Your task to perform on an android device: Search for "razer blade" on target, select the first entry, add it to the cart, then select checkout. Image 0: 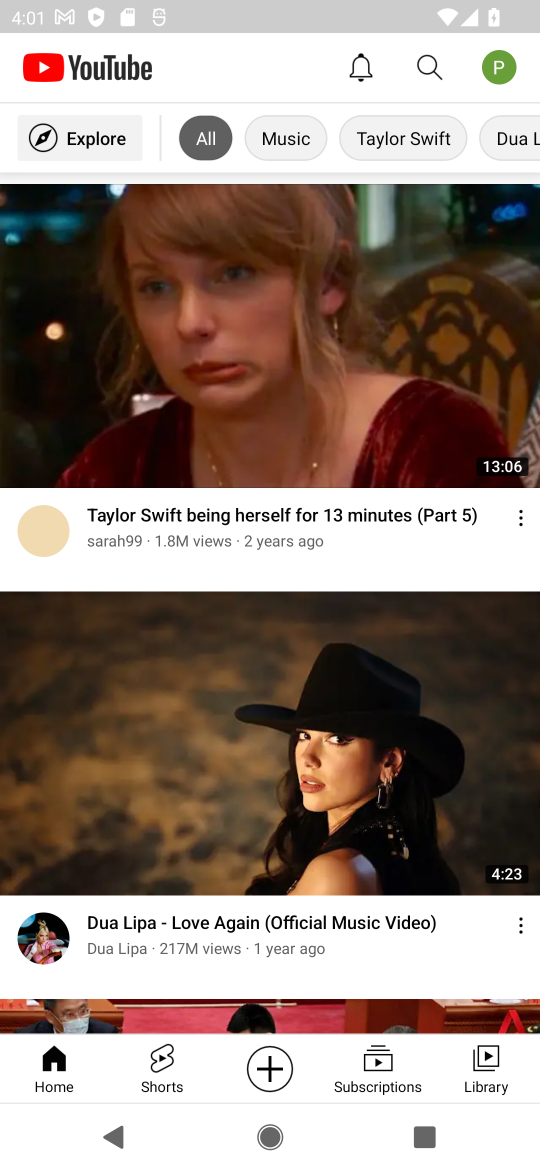
Step 0: press home button
Your task to perform on an android device: Search for "razer blade" on target, select the first entry, add it to the cart, then select checkout. Image 1: 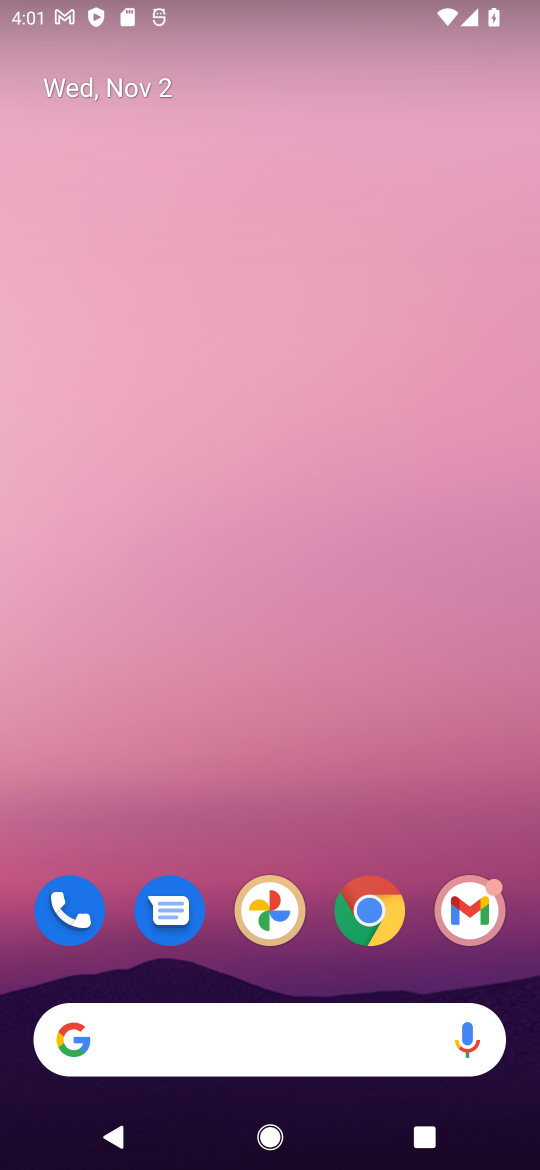
Step 1: click (389, 906)
Your task to perform on an android device: Search for "razer blade" on target, select the first entry, add it to the cart, then select checkout. Image 2: 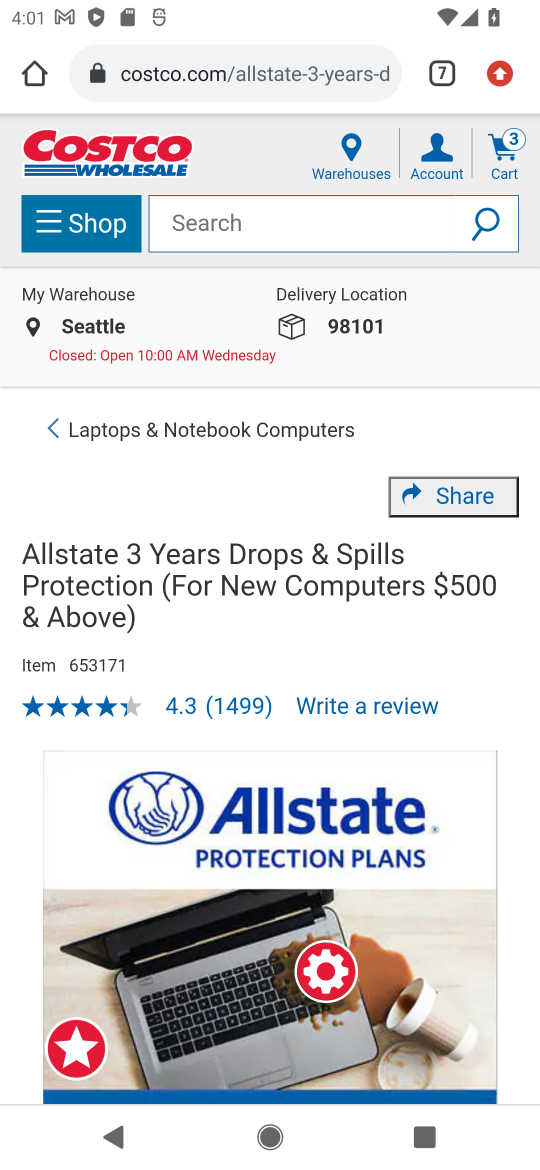
Step 2: click (444, 65)
Your task to perform on an android device: Search for "razer blade" on target, select the first entry, add it to the cart, then select checkout. Image 3: 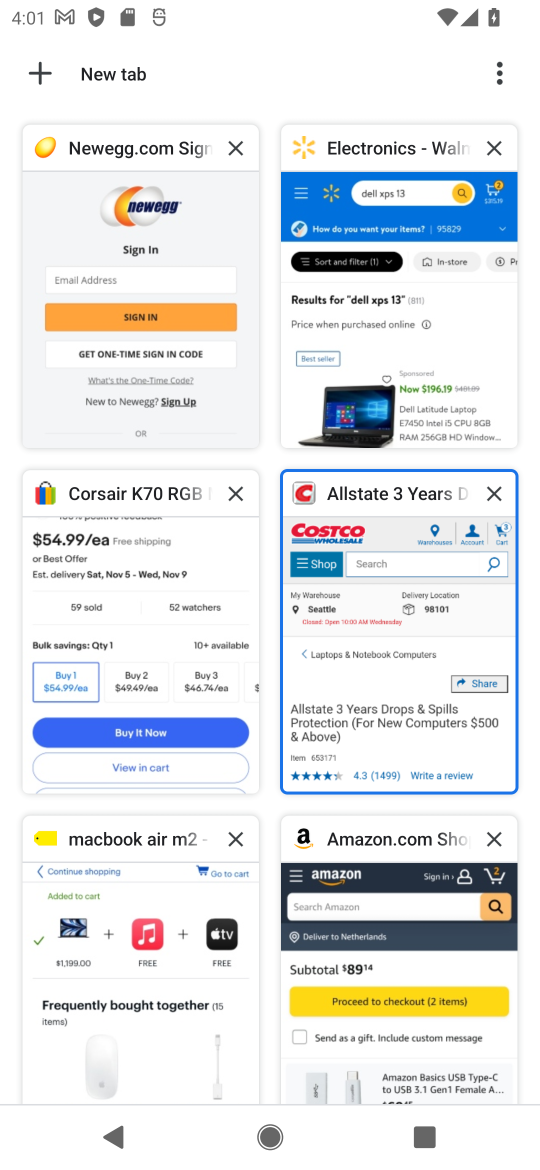
Step 3: drag from (343, 916) to (306, 181)
Your task to perform on an android device: Search for "razer blade" on target, select the first entry, add it to the cart, then select checkout. Image 4: 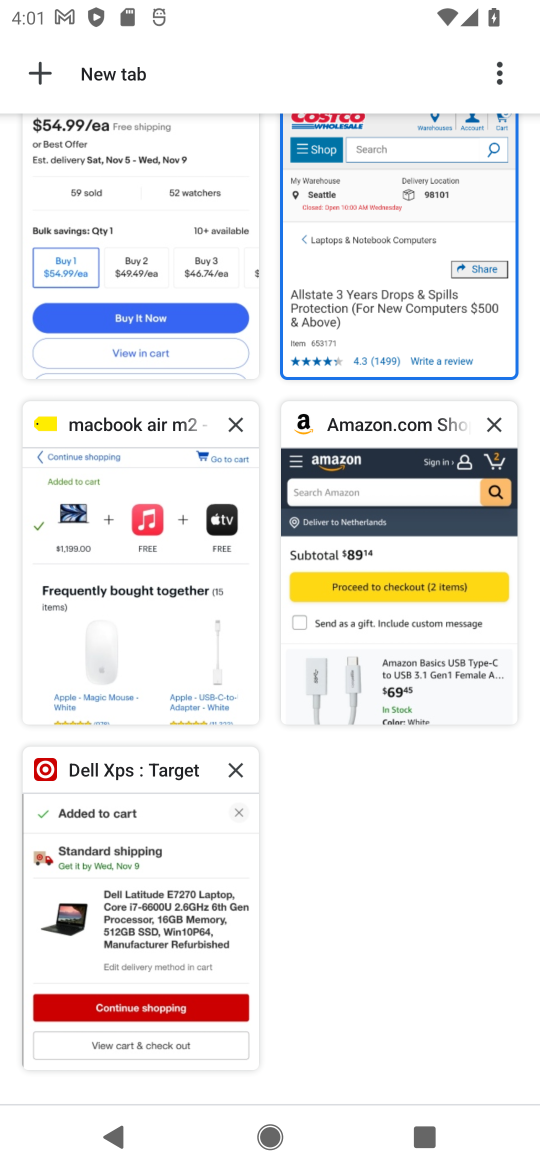
Step 4: click (99, 838)
Your task to perform on an android device: Search for "razer blade" on target, select the first entry, add it to the cart, then select checkout. Image 5: 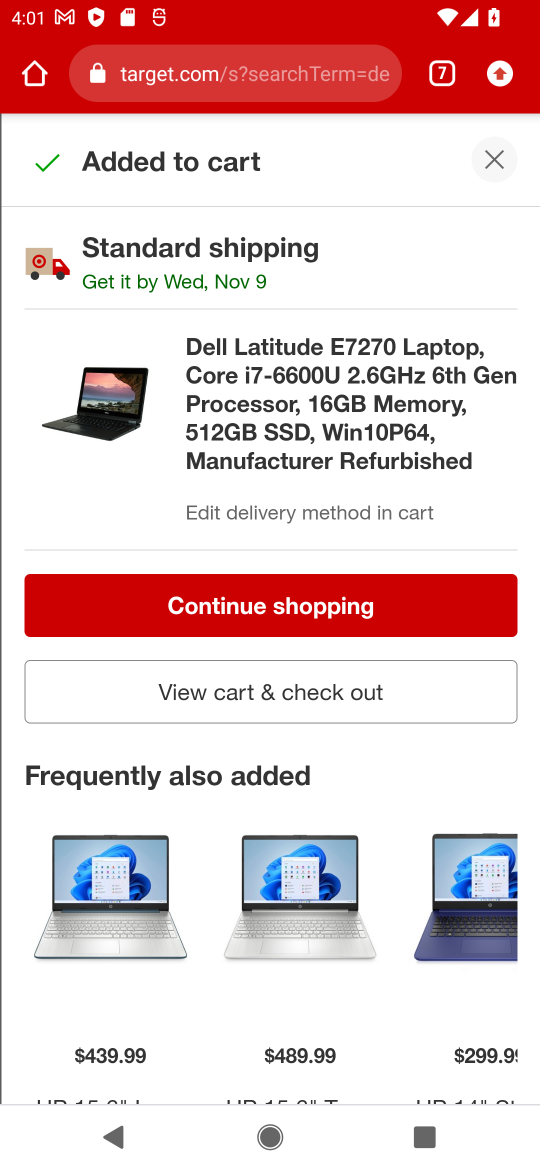
Step 5: click (493, 160)
Your task to perform on an android device: Search for "razer blade" on target, select the first entry, add it to the cart, then select checkout. Image 6: 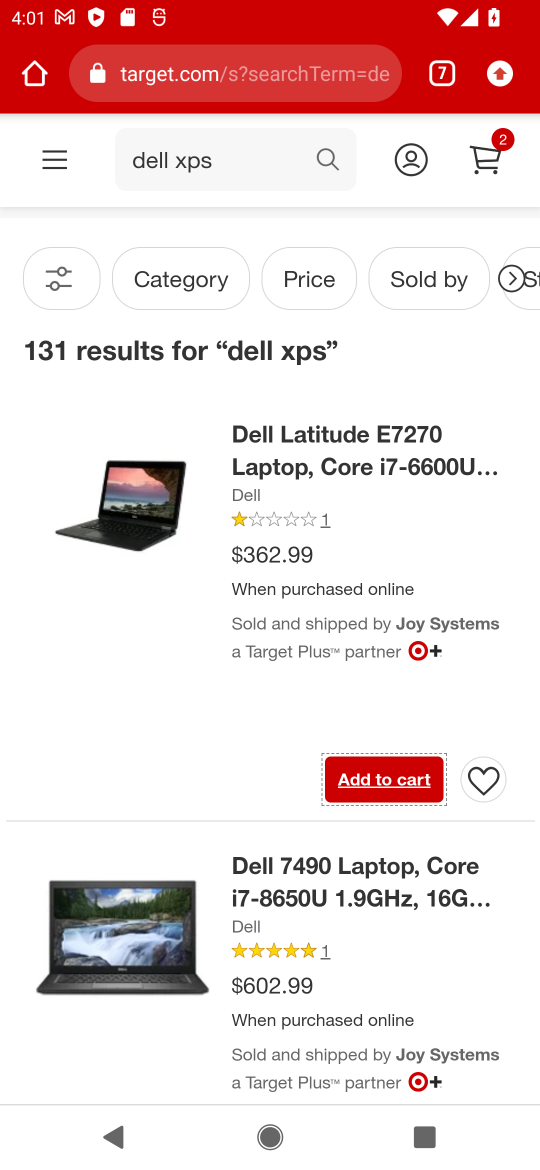
Step 6: click (225, 166)
Your task to perform on an android device: Search for "razer blade" on target, select the first entry, add it to the cart, then select checkout. Image 7: 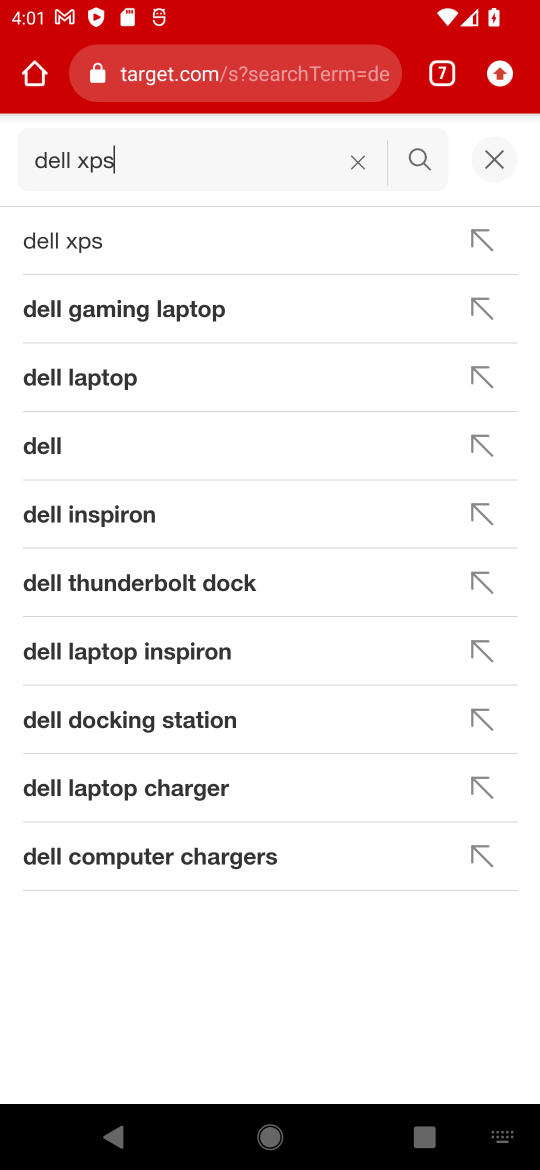
Step 7: click (361, 165)
Your task to perform on an android device: Search for "razer blade" on target, select the first entry, add it to the cart, then select checkout. Image 8: 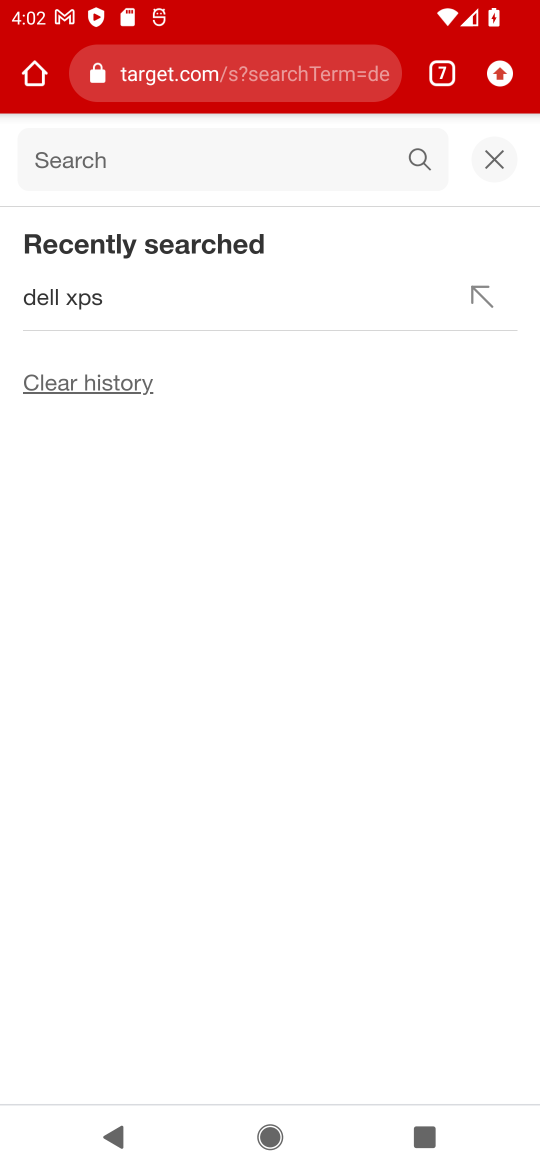
Step 8: click (338, 169)
Your task to perform on an android device: Search for "razer blade" on target, select the first entry, add it to the cart, then select checkout. Image 9: 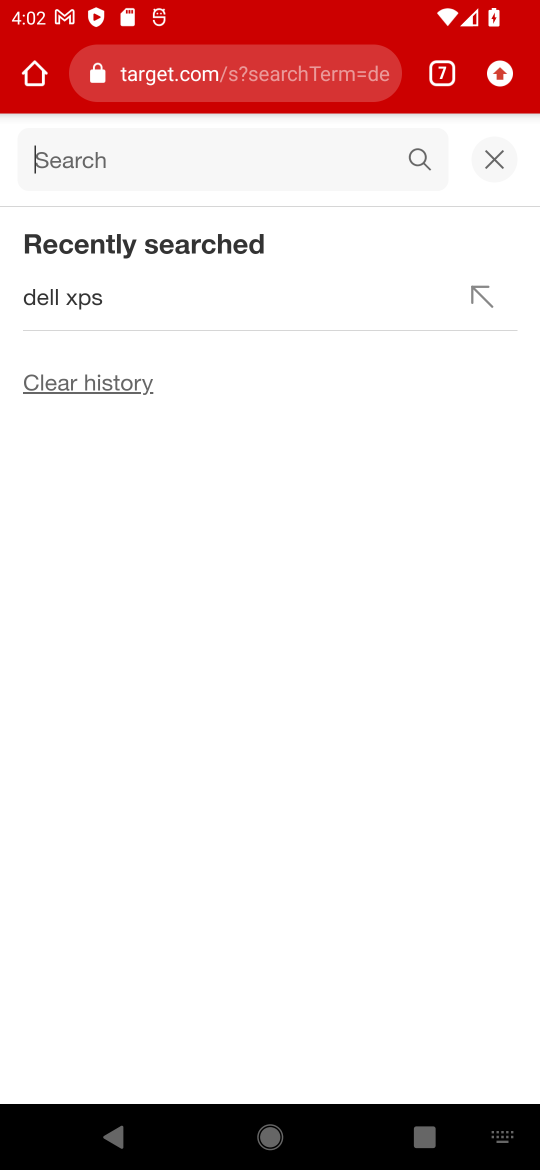
Step 9: type "razer blade"
Your task to perform on an android device: Search for "razer blade" on target, select the first entry, add it to the cart, then select checkout. Image 10: 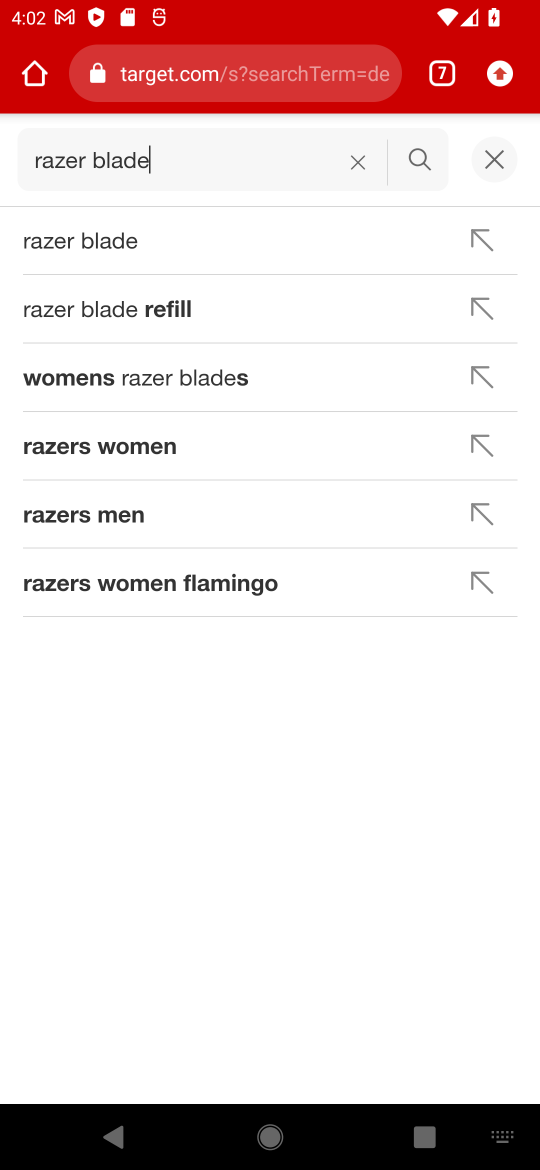
Step 10: click (108, 243)
Your task to perform on an android device: Search for "razer blade" on target, select the first entry, add it to the cart, then select checkout. Image 11: 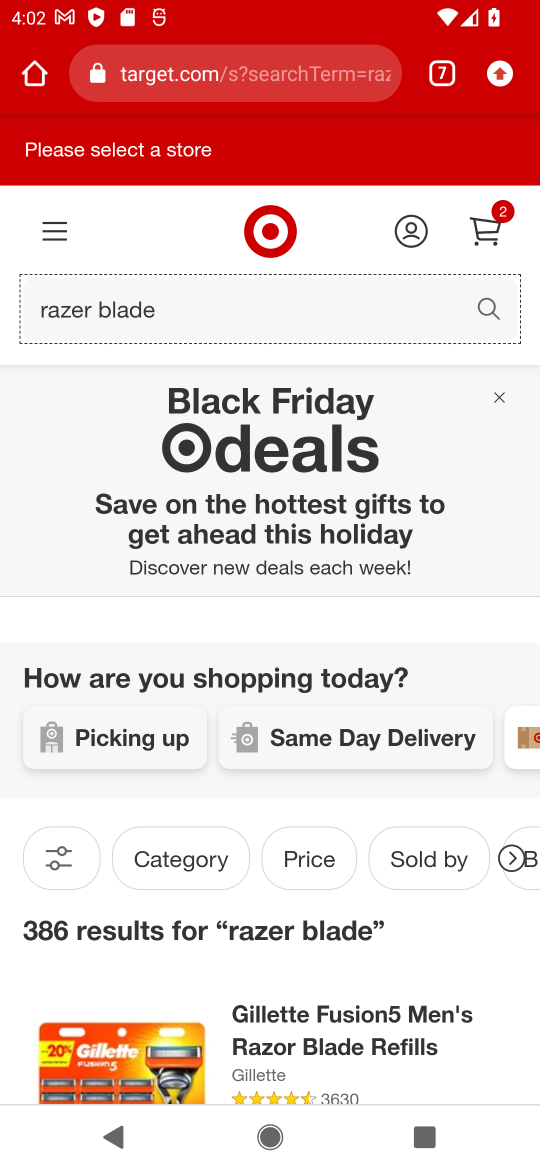
Step 11: drag from (329, 960) to (446, 382)
Your task to perform on an android device: Search for "razer blade" on target, select the first entry, add it to the cart, then select checkout. Image 12: 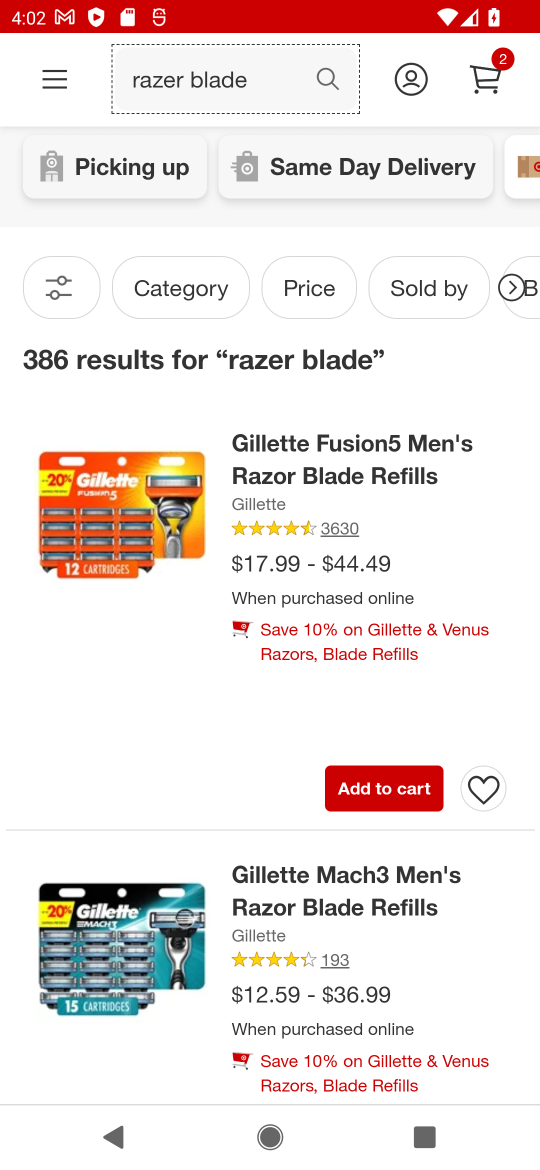
Step 12: click (388, 785)
Your task to perform on an android device: Search for "razer blade" on target, select the first entry, add it to the cart, then select checkout. Image 13: 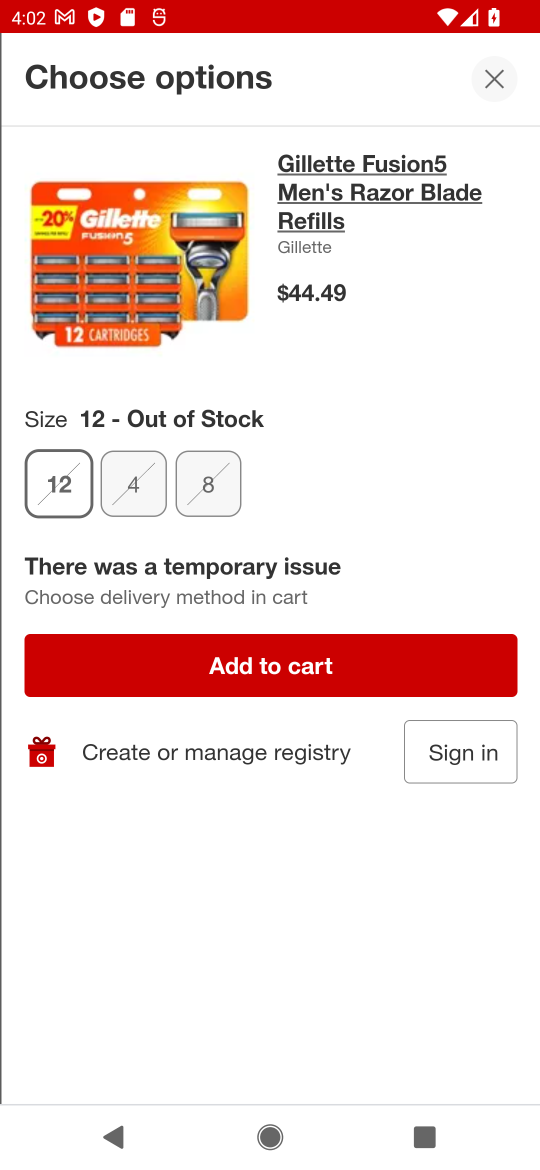
Step 13: click (336, 674)
Your task to perform on an android device: Search for "razer blade" on target, select the first entry, add it to the cart, then select checkout. Image 14: 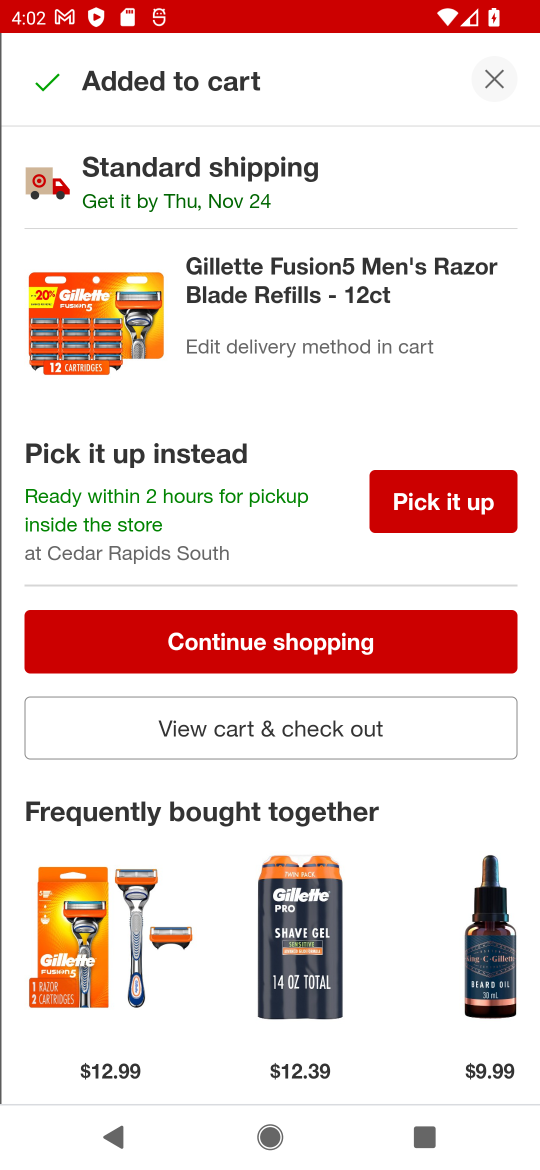
Step 14: click (319, 727)
Your task to perform on an android device: Search for "razer blade" on target, select the first entry, add it to the cart, then select checkout. Image 15: 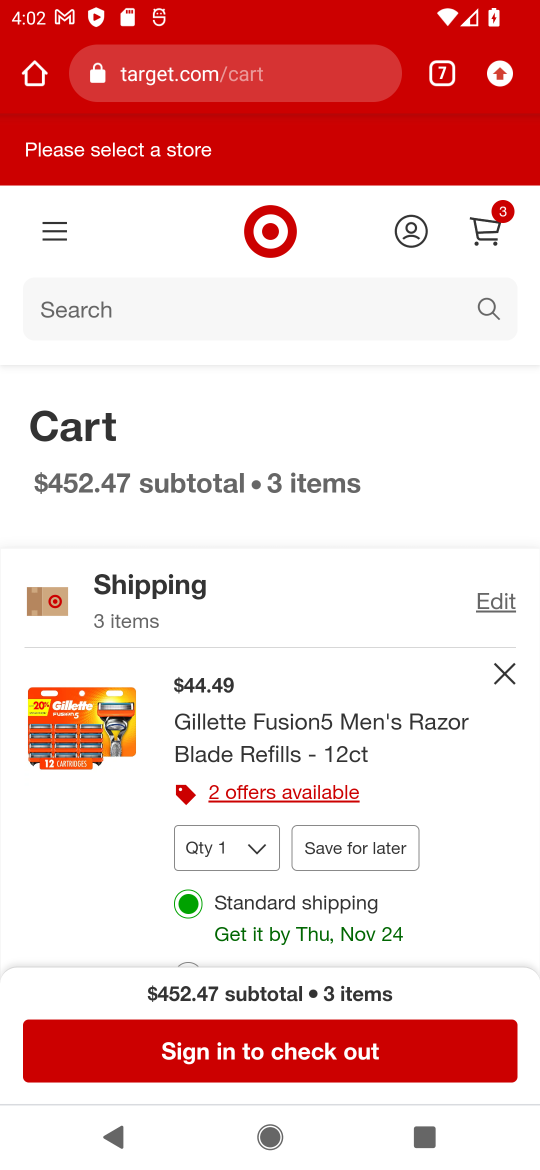
Step 15: click (343, 1056)
Your task to perform on an android device: Search for "razer blade" on target, select the first entry, add it to the cart, then select checkout. Image 16: 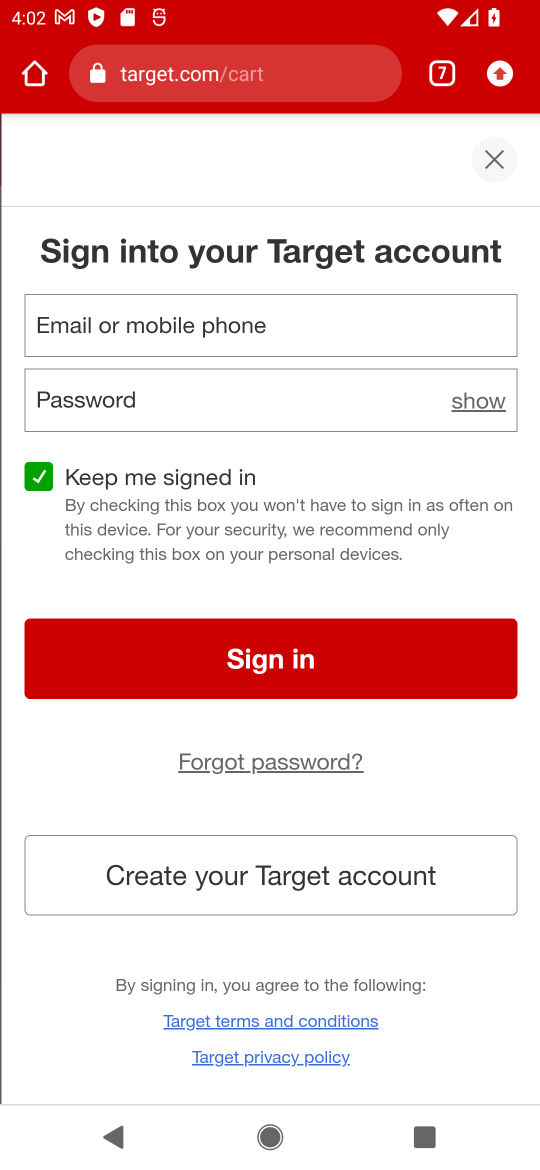
Step 16: task complete